Your task to perform on an android device: delete browsing data in the chrome app Image 0: 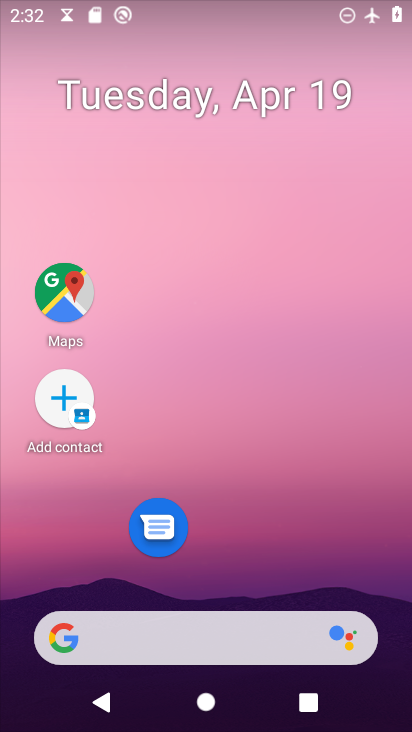
Step 0: drag from (253, 577) to (258, 53)
Your task to perform on an android device: delete browsing data in the chrome app Image 1: 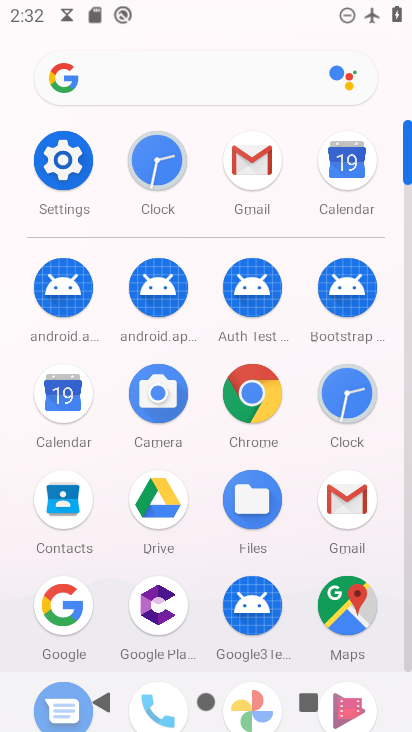
Step 1: click (257, 395)
Your task to perform on an android device: delete browsing data in the chrome app Image 2: 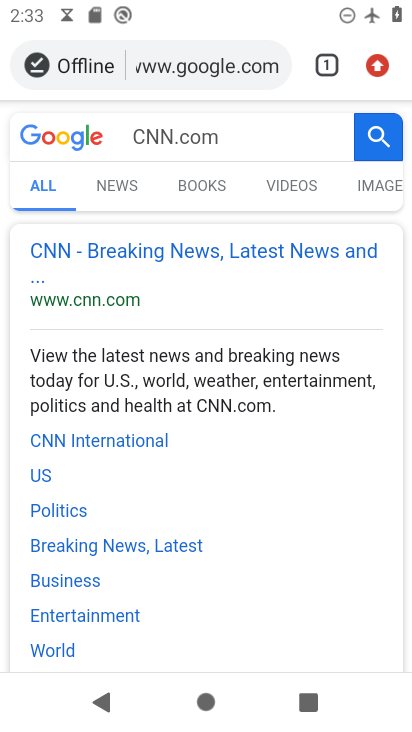
Step 2: click (378, 61)
Your task to perform on an android device: delete browsing data in the chrome app Image 3: 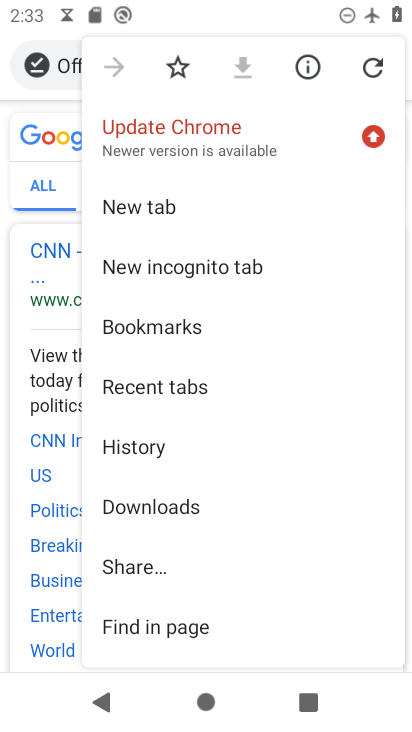
Step 3: click (138, 445)
Your task to perform on an android device: delete browsing data in the chrome app Image 4: 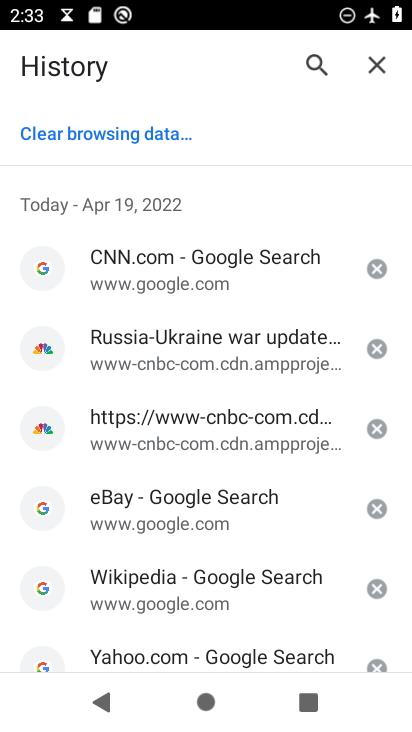
Step 4: click (158, 136)
Your task to perform on an android device: delete browsing data in the chrome app Image 5: 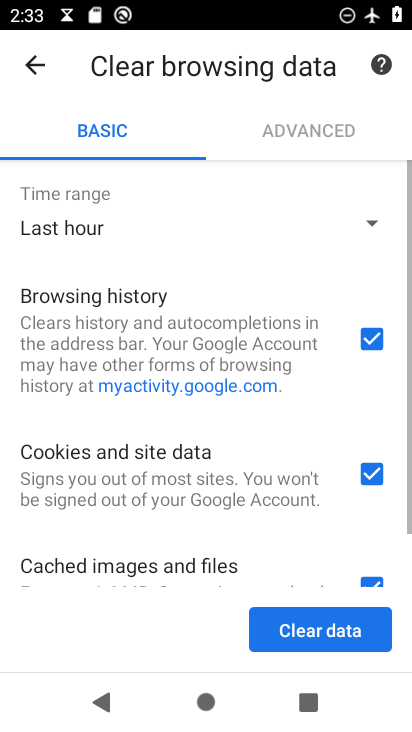
Step 5: click (344, 632)
Your task to perform on an android device: delete browsing data in the chrome app Image 6: 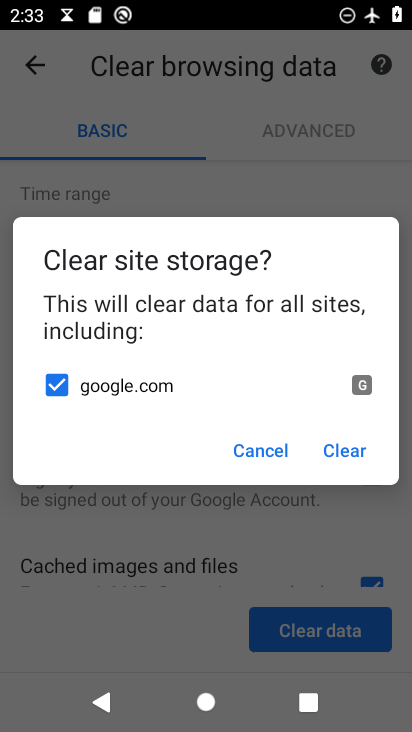
Step 6: click (356, 450)
Your task to perform on an android device: delete browsing data in the chrome app Image 7: 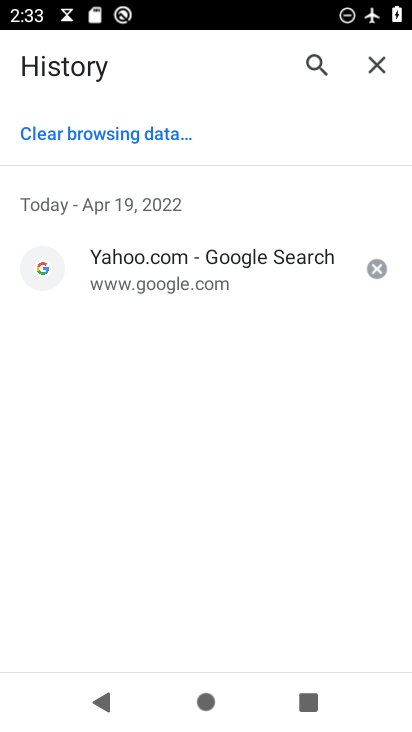
Step 7: task complete